Your task to perform on an android device: turn on the 24-hour format for clock Image 0: 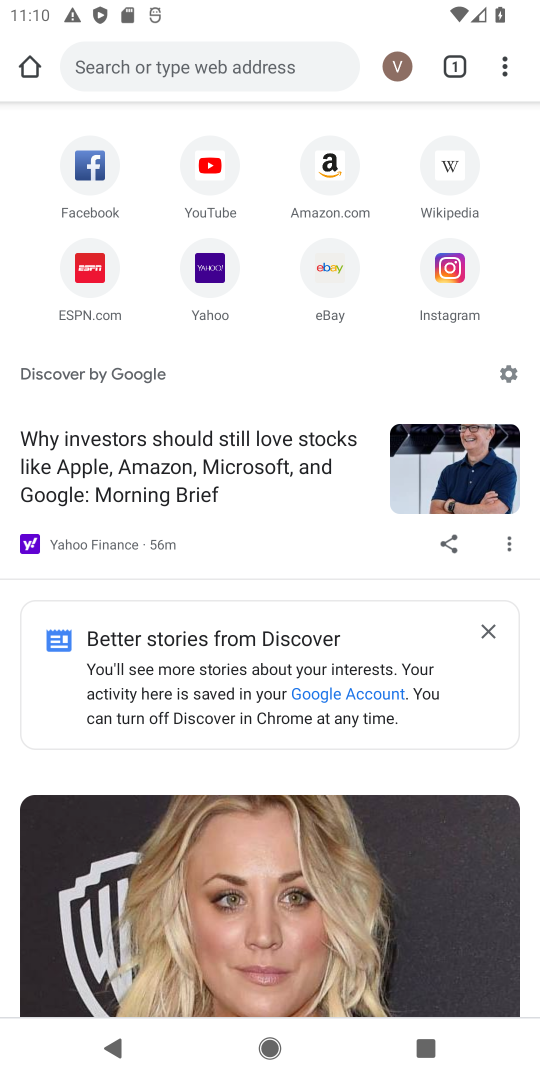
Step 0: press home button
Your task to perform on an android device: turn on the 24-hour format for clock Image 1: 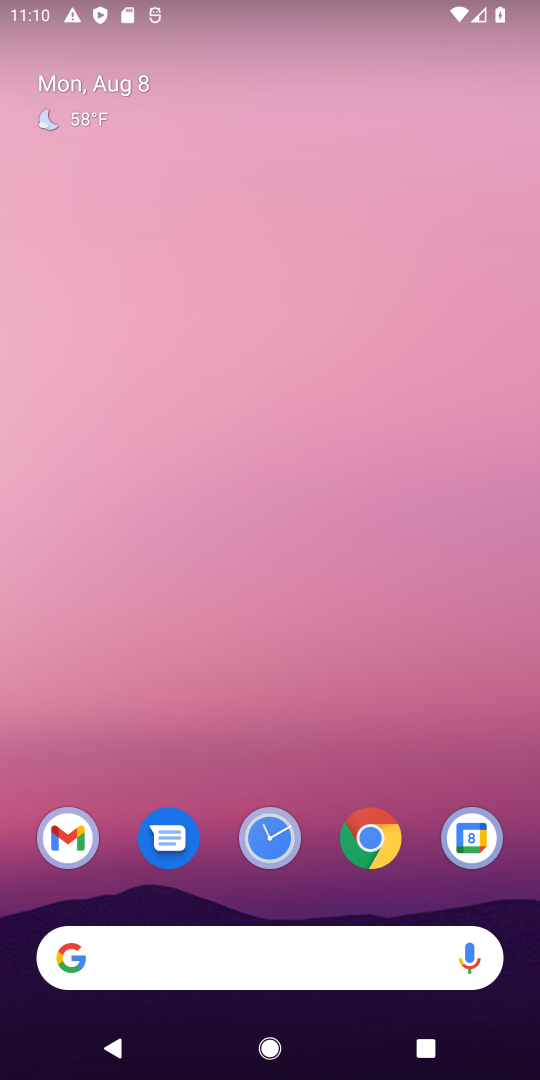
Step 1: drag from (333, 855) to (316, 198)
Your task to perform on an android device: turn on the 24-hour format for clock Image 2: 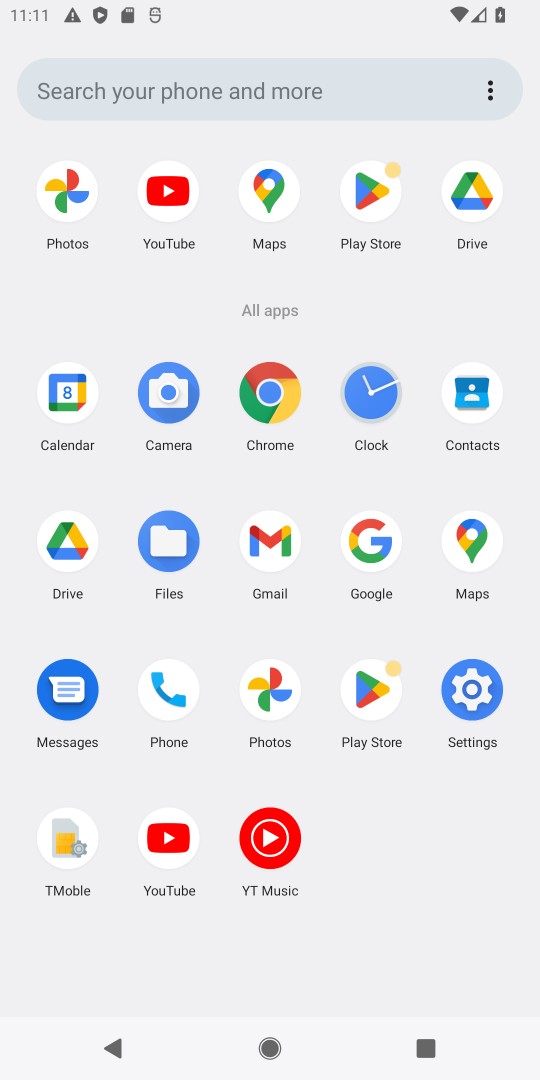
Step 2: click (480, 680)
Your task to perform on an android device: turn on the 24-hour format for clock Image 3: 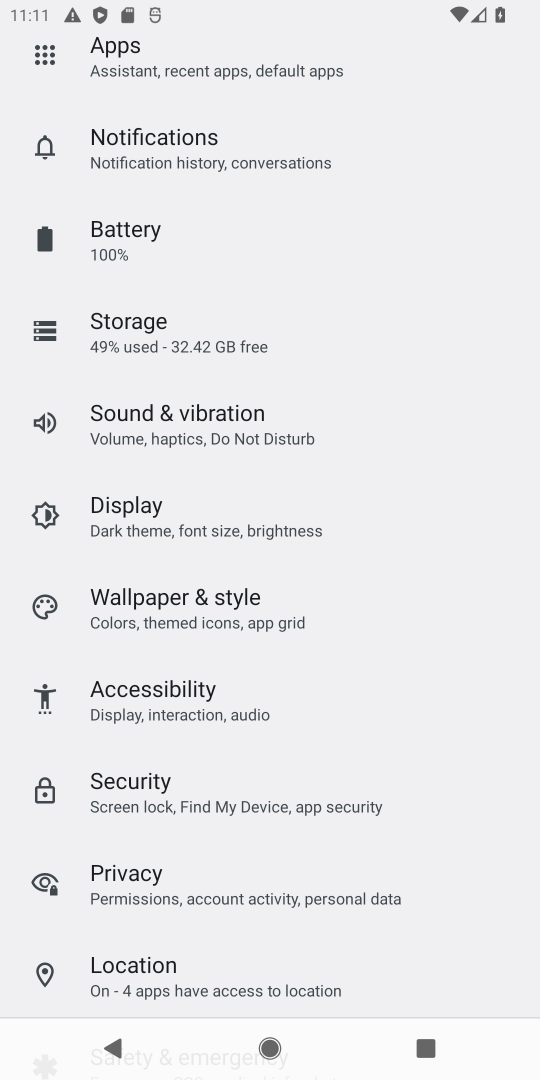
Step 3: drag from (400, 962) to (417, 9)
Your task to perform on an android device: turn on the 24-hour format for clock Image 4: 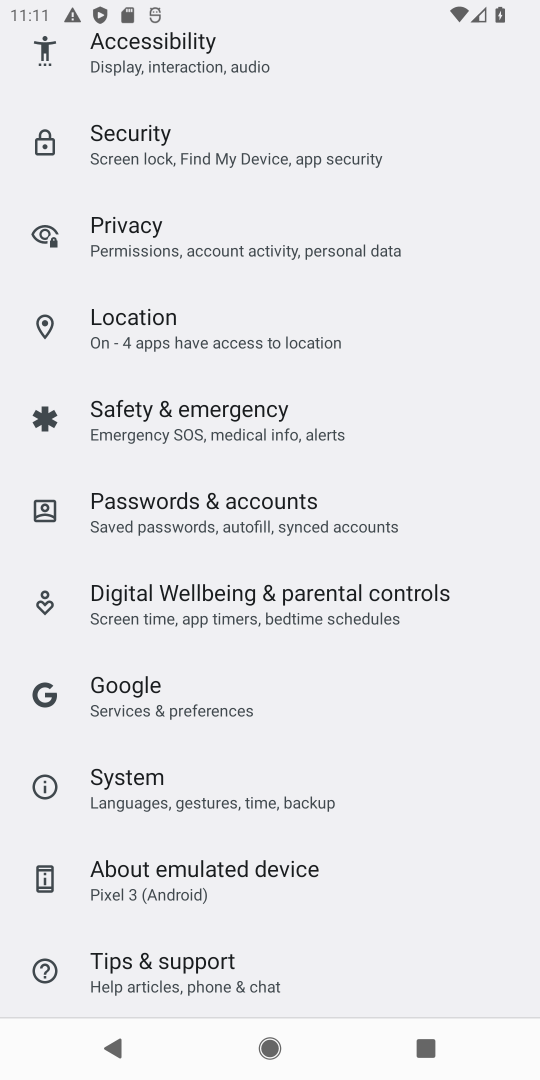
Step 4: drag from (384, 947) to (389, 234)
Your task to perform on an android device: turn on the 24-hour format for clock Image 5: 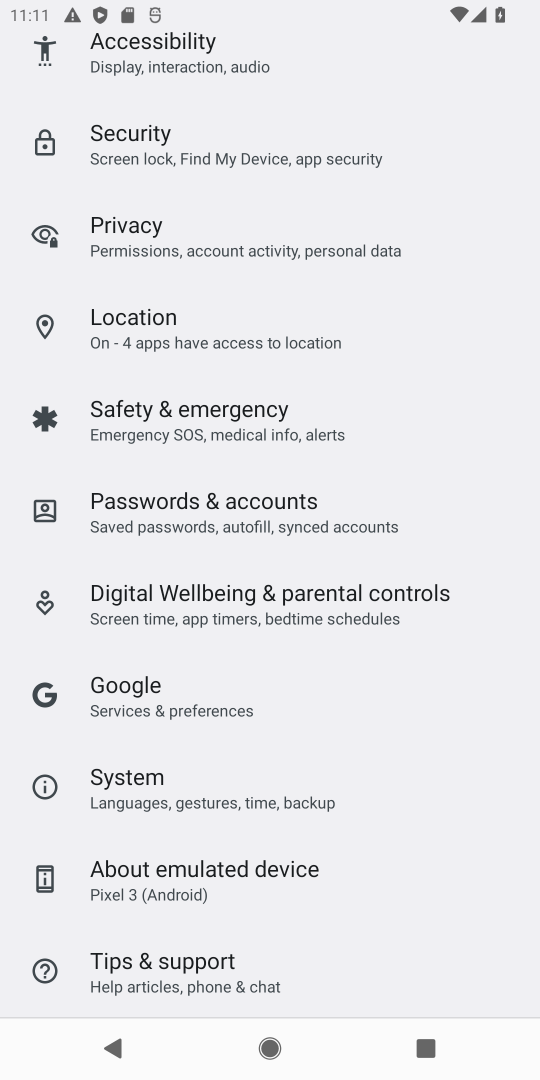
Step 5: click (165, 790)
Your task to perform on an android device: turn on the 24-hour format for clock Image 6: 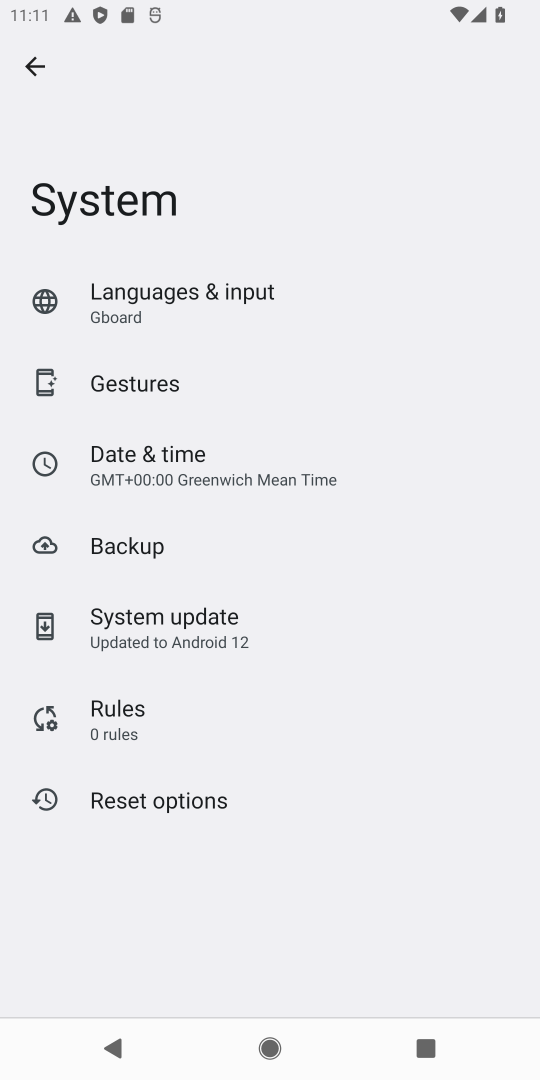
Step 6: click (123, 476)
Your task to perform on an android device: turn on the 24-hour format for clock Image 7: 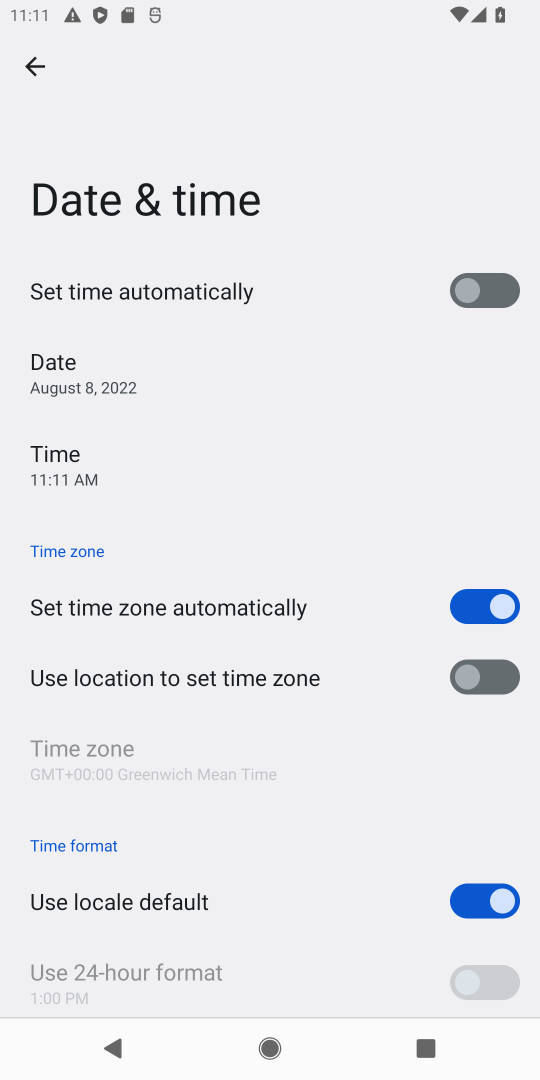
Step 7: click (515, 892)
Your task to perform on an android device: turn on the 24-hour format for clock Image 8: 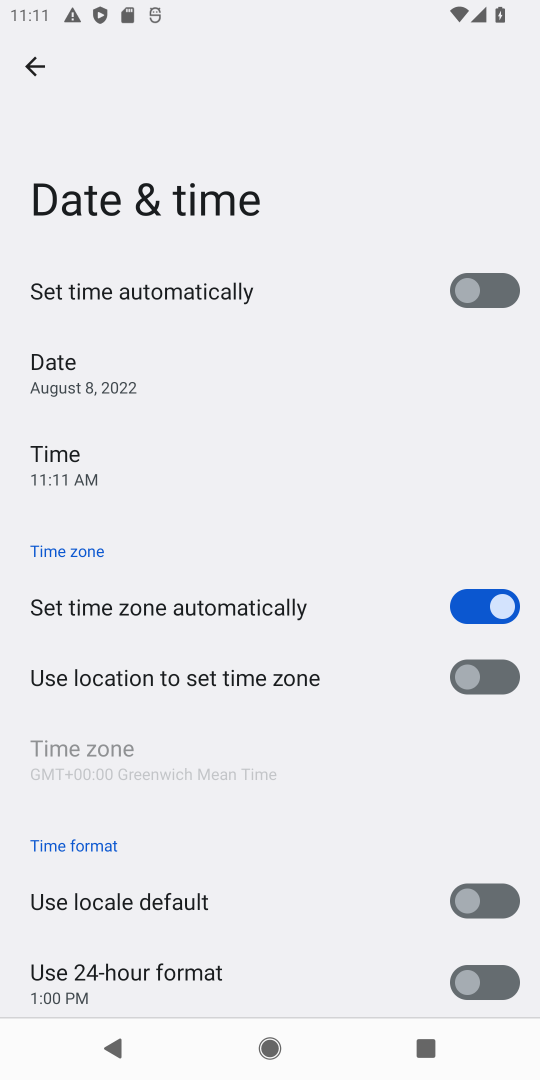
Step 8: click (460, 980)
Your task to perform on an android device: turn on the 24-hour format for clock Image 9: 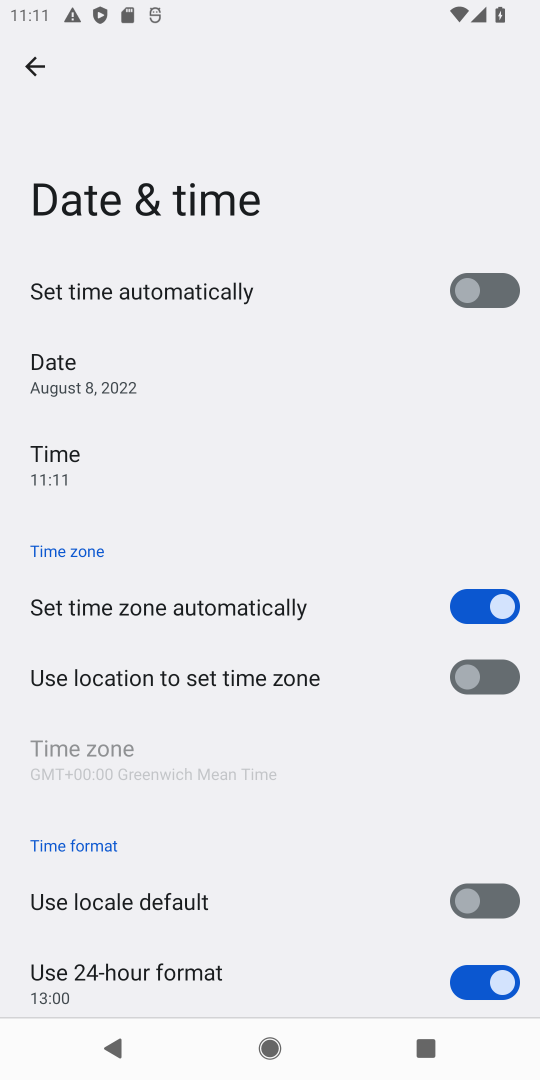
Step 9: task complete